Your task to perform on an android device: turn off smart reply in the gmail app Image 0: 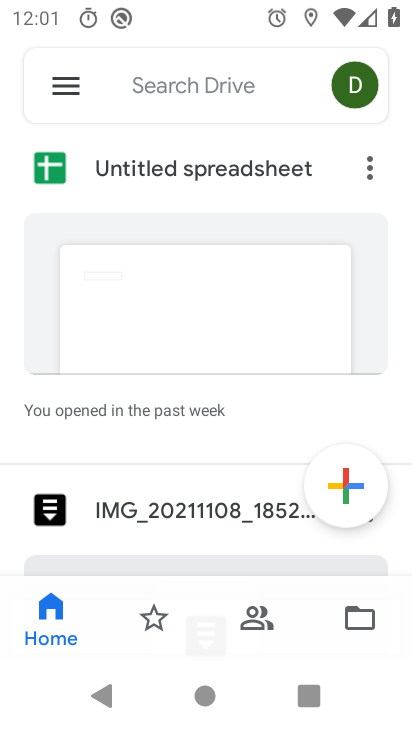
Step 0: press home button
Your task to perform on an android device: turn off smart reply in the gmail app Image 1: 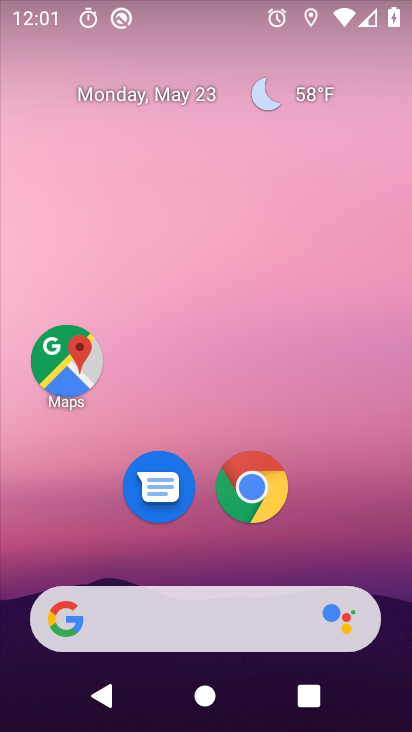
Step 1: drag from (371, 525) to (333, 146)
Your task to perform on an android device: turn off smart reply in the gmail app Image 2: 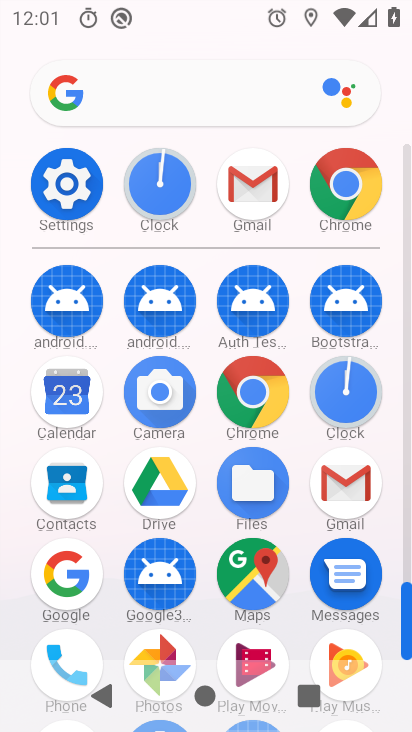
Step 2: click (339, 482)
Your task to perform on an android device: turn off smart reply in the gmail app Image 3: 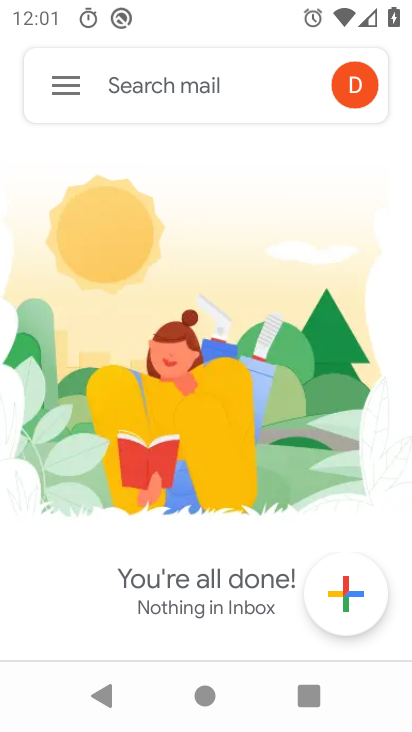
Step 3: click (68, 80)
Your task to perform on an android device: turn off smart reply in the gmail app Image 4: 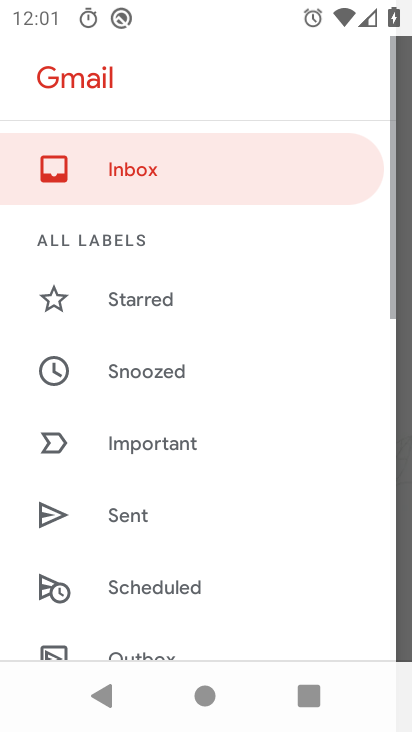
Step 4: drag from (221, 469) to (277, 142)
Your task to perform on an android device: turn off smart reply in the gmail app Image 5: 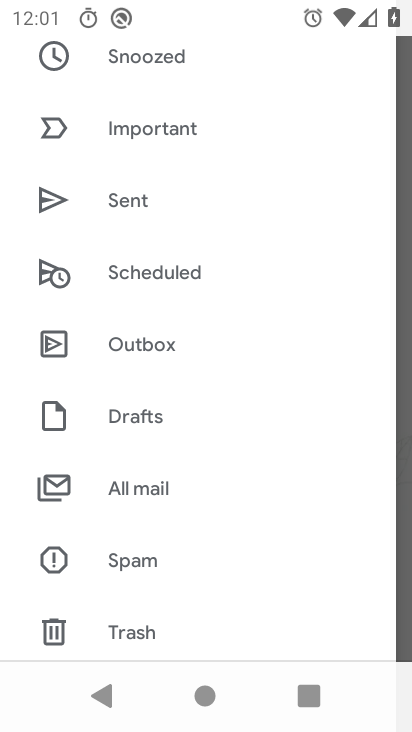
Step 5: drag from (247, 557) to (278, 234)
Your task to perform on an android device: turn off smart reply in the gmail app Image 6: 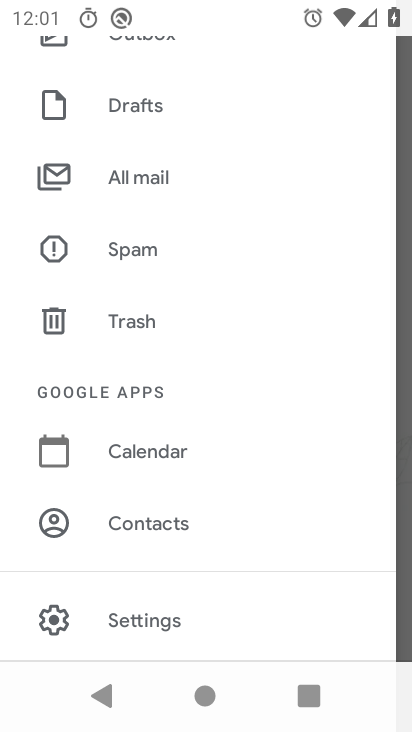
Step 6: drag from (233, 547) to (232, 260)
Your task to perform on an android device: turn off smart reply in the gmail app Image 7: 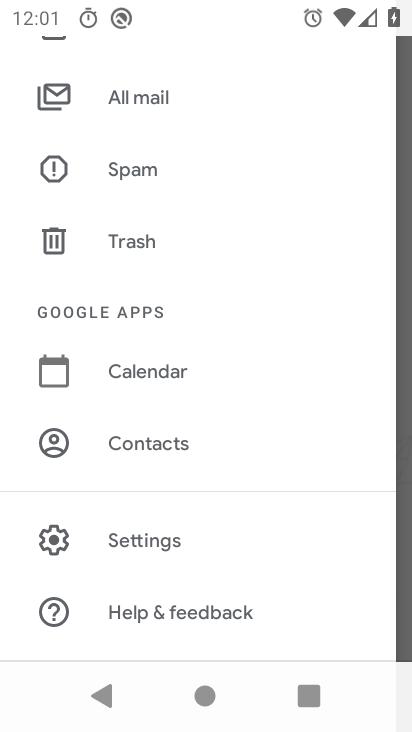
Step 7: click (205, 541)
Your task to perform on an android device: turn off smart reply in the gmail app Image 8: 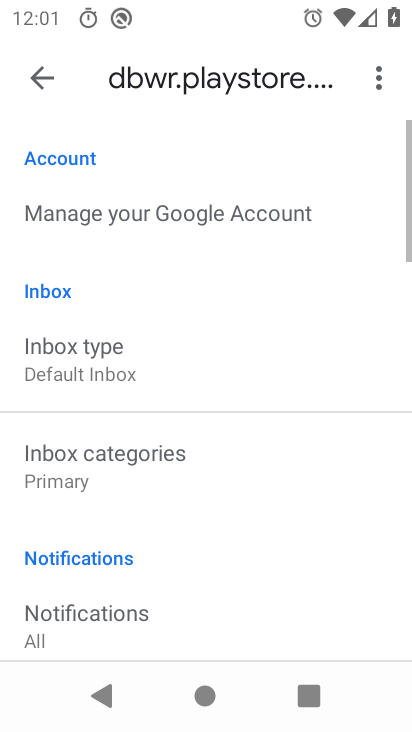
Step 8: drag from (220, 554) to (226, 255)
Your task to perform on an android device: turn off smart reply in the gmail app Image 9: 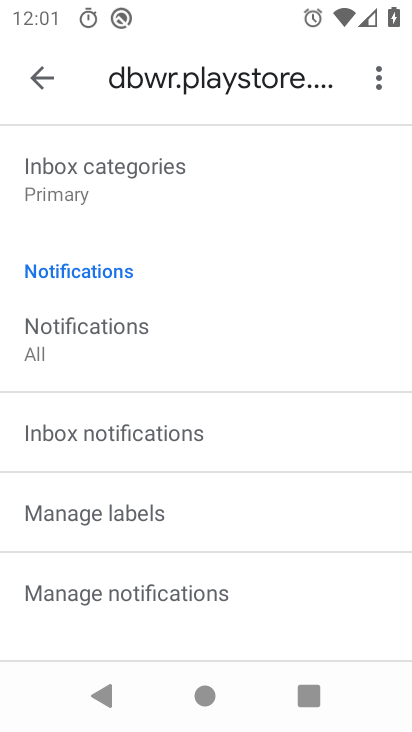
Step 9: drag from (228, 584) to (258, 296)
Your task to perform on an android device: turn off smart reply in the gmail app Image 10: 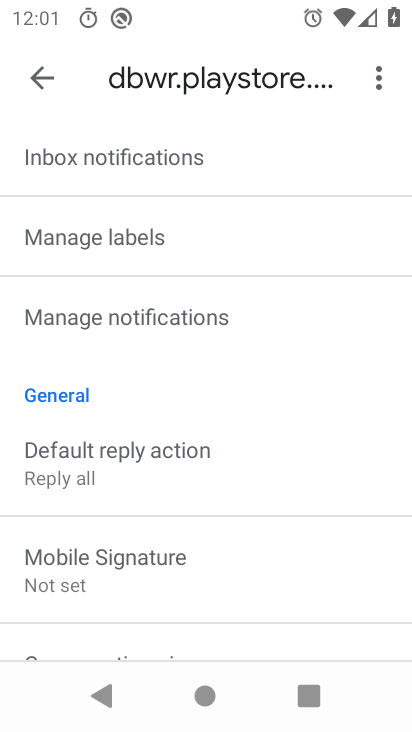
Step 10: drag from (239, 554) to (281, 223)
Your task to perform on an android device: turn off smart reply in the gmail app Image 11: 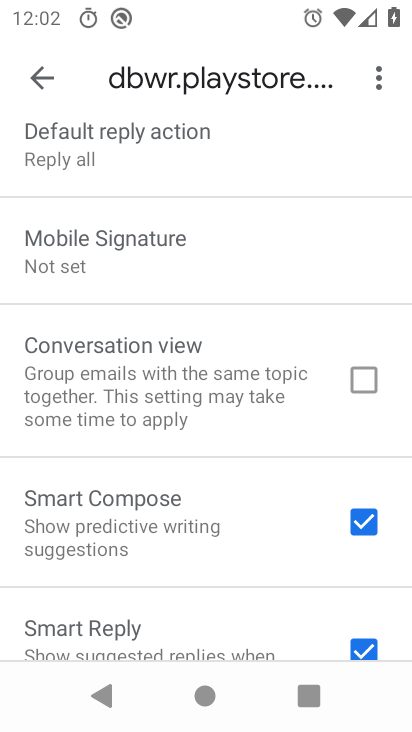
Step 11: drag from (219, 579) to (232, 306)
Your task to perform on an android device: turn off smart reply in the gmail app Image 12: 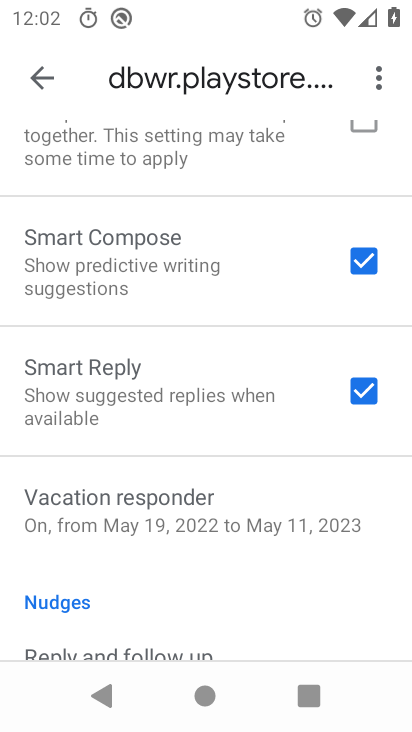
Step 12: click (366, 392)
Your task to perform on an android device: turn off smart reply in the gmail app Image 13: 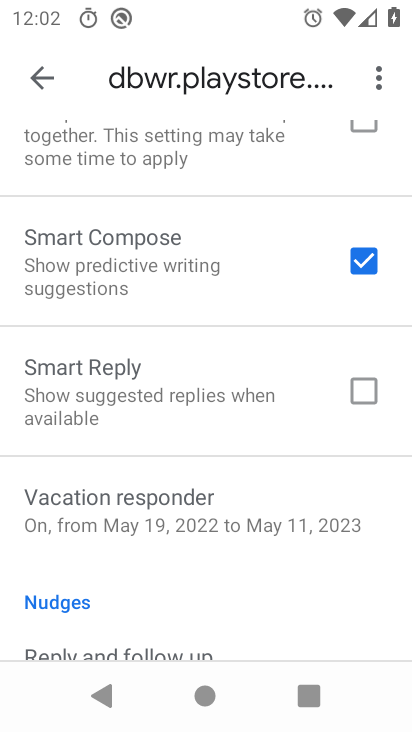
Step 13: task complete